Your task to perform on an android device: Open calendar and show me the first week of next month Image 0: 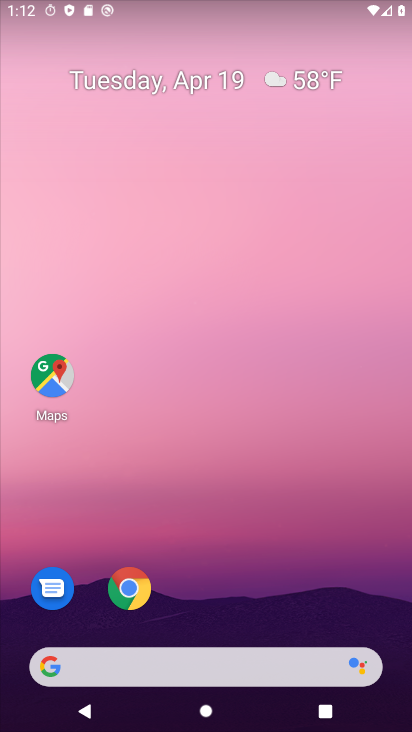
Step 0: drag from (209, 446) to (199, 122)
Your task to perform on an android device: Open calendar and show me the first week of next month Image 1: 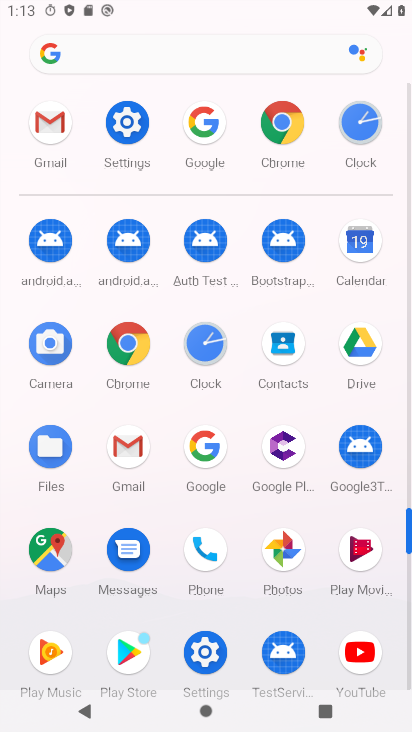
Step 1: click (357, 249)
Your task to perform on an android device: Open calendar and show me the first week of next month Image 2: 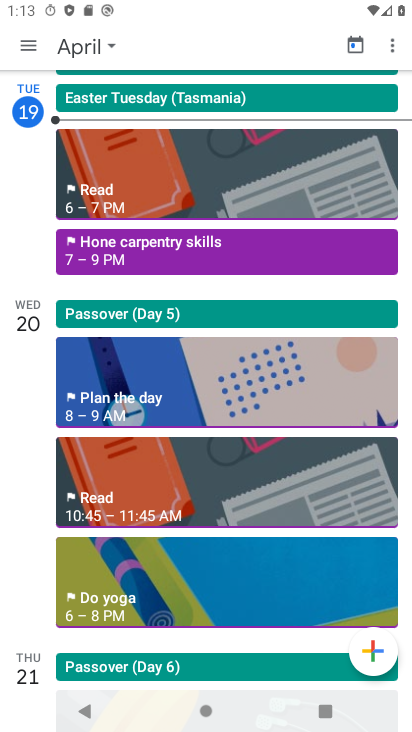
Step 2: click (114, 46)
Your task to perform on an android device: Open calendar and show me the first week of next month Image 3: 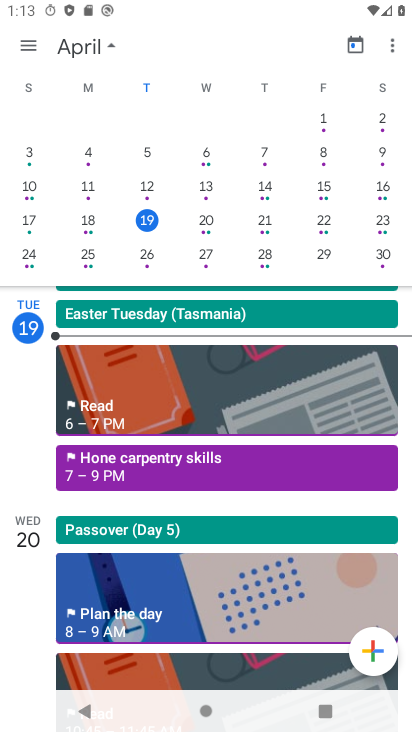
Step 3: drag from (333, 201) to (42, 194)
Your task to perform on an android device: Open calendar and show me the first week of next month Image 4: 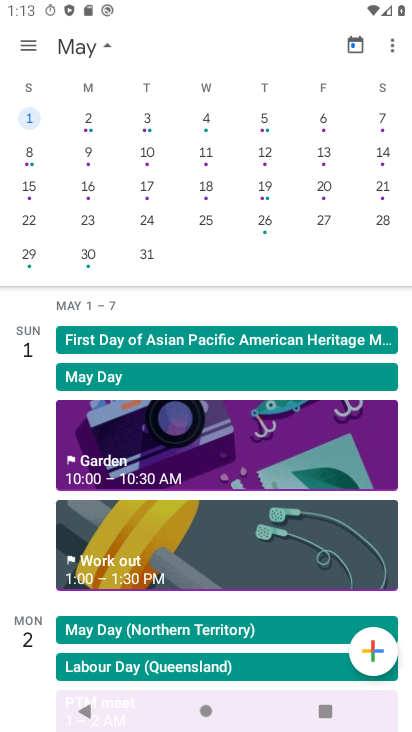
Step 4: click (88, 120)
Your task to perform on an android device: Open calendar and show me the first week of next month Image 5: 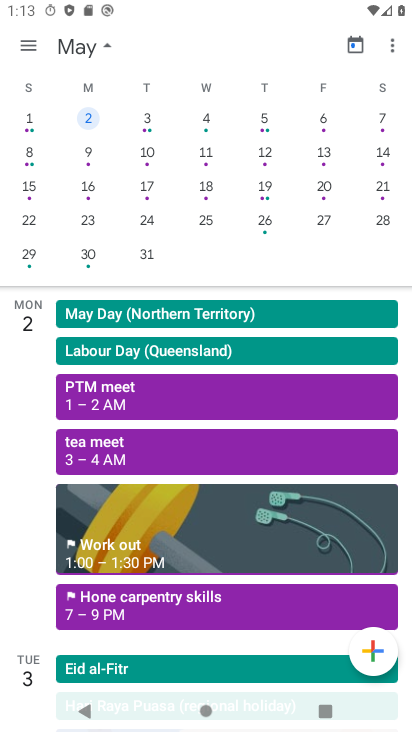
Step 5: task complete